Your task to perform on an android device: Check the weather Image 0: 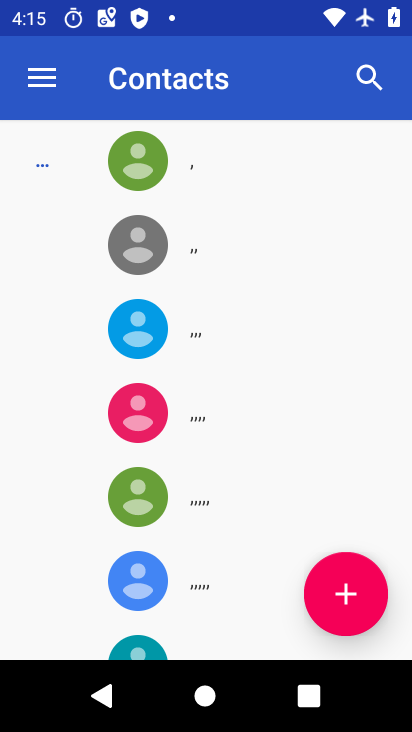
Step 0: press home button
Your task to perform on an android device: Check the weather Image 1: 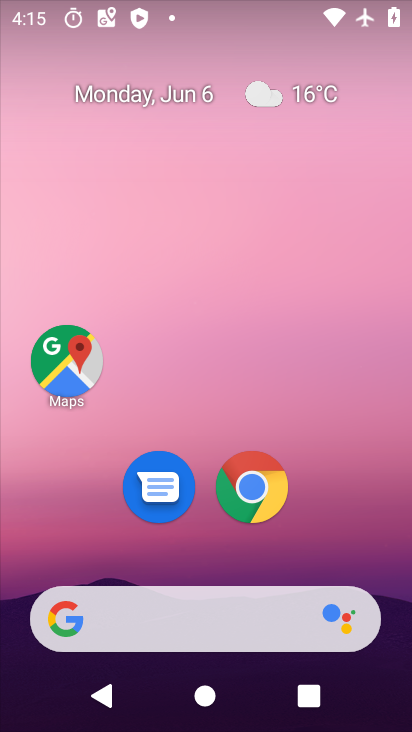
Step 1: click (326, 85)
Your task to perform on an android device: Check the weather Image 2: 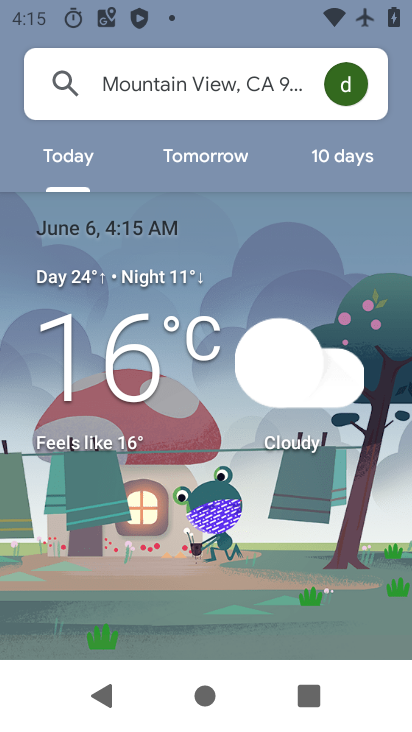
Step 2: task complete